Your task to perform on an android device: Search for pizza restaurants on Maps Image 0: 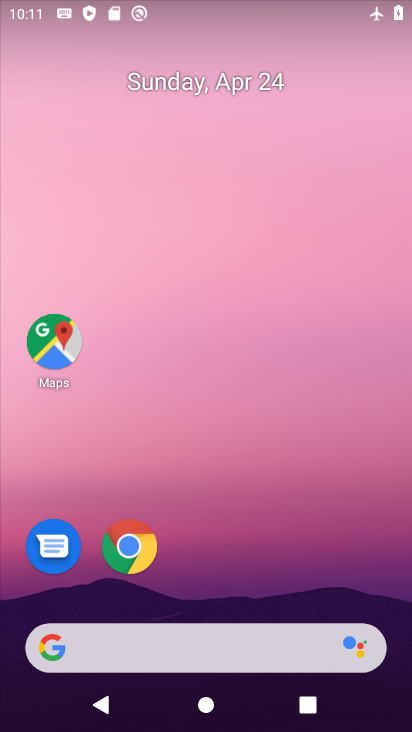
Step 0: click (54, 344)
Your task to perform on an android device: Search for pizza restaurants on Maps Image 1: 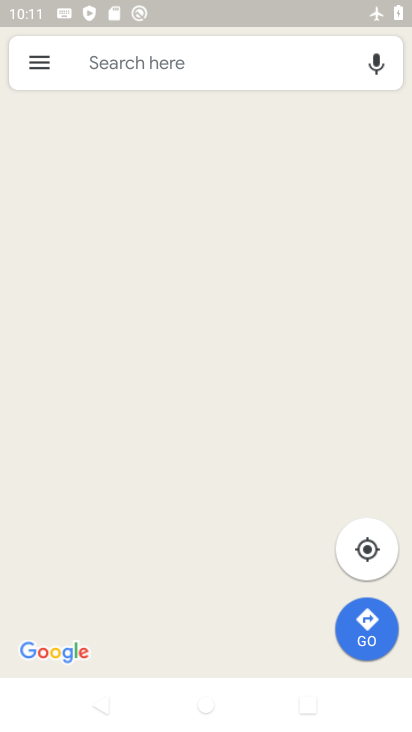
Step 1: click (99, 66)
Your task to perform on an android device: Search for pizza restaurants on Maps Image 2: 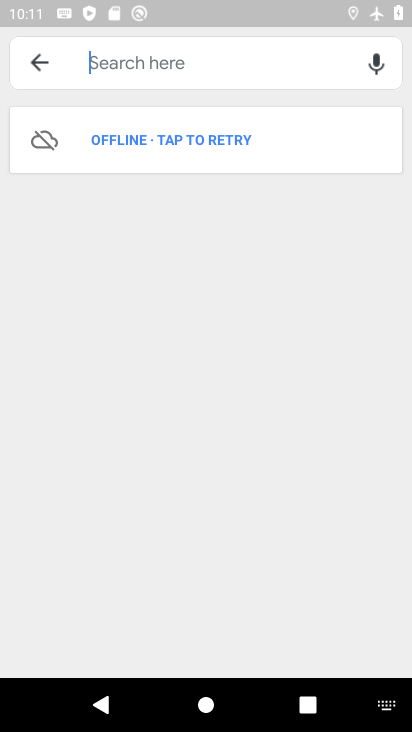
Step 2: type "pizza restaurant"
Your task to perform on an android device: Search for pizza restaurants on Maps Image 3: 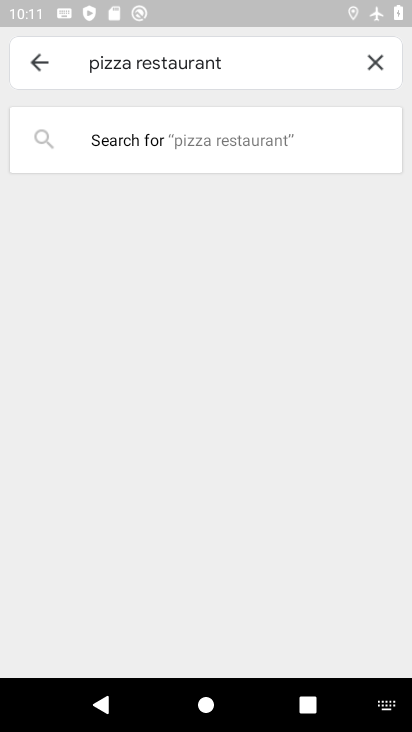
Step 3: click (157, 147)
Your task to perform on an android device: Search for pizza restaurants on Maps Image 4: 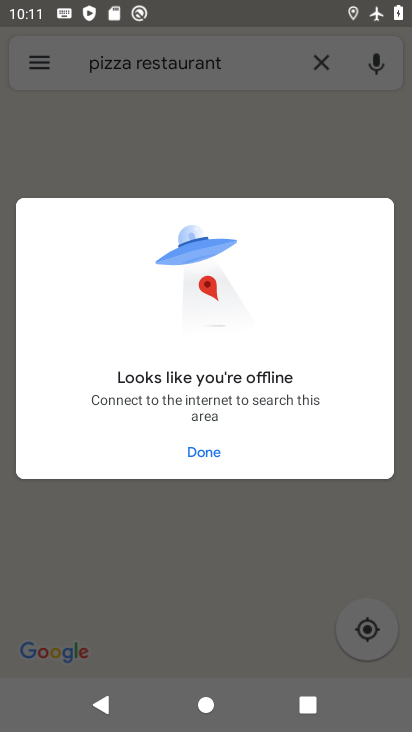
Step 4: task complete